Your task to perform on an android device: Do I have any events tomorrow? Image 0: 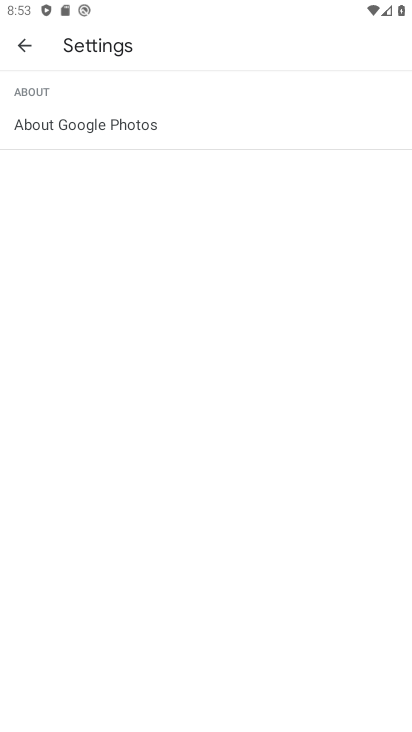
Step 0: press home button
Your task to perform on an android device: Do I have any events tomorrow? Image 1: 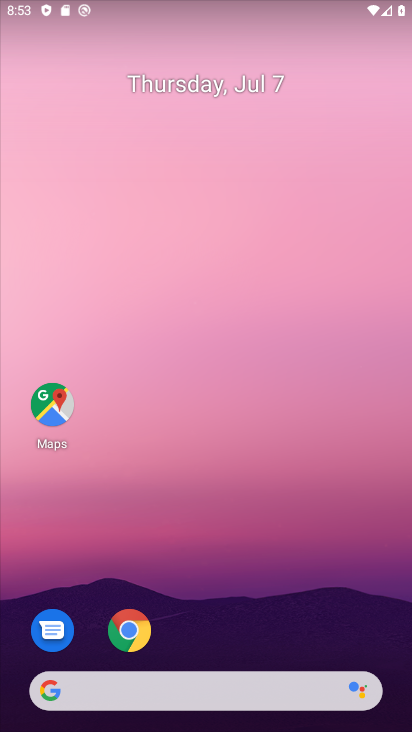
Step 1: drag from (275, 635) to (319, 69)
Your task to perform on an android device: Do I have any events tomorrow? Image 2: 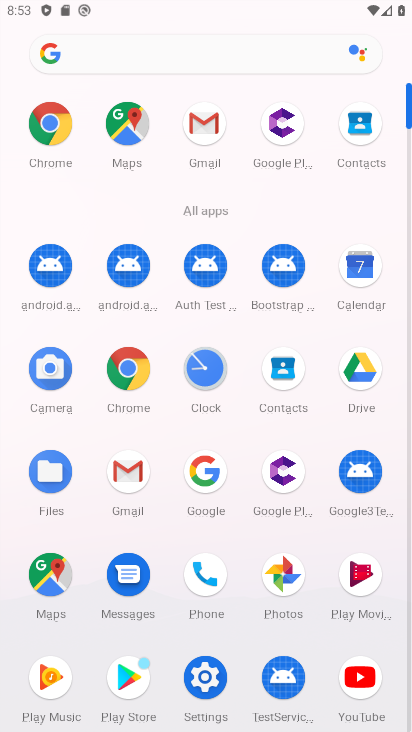
Step 2: click (358, 253)
Your task to perform on an android device: Do I have any events tomorrow? Image 3: 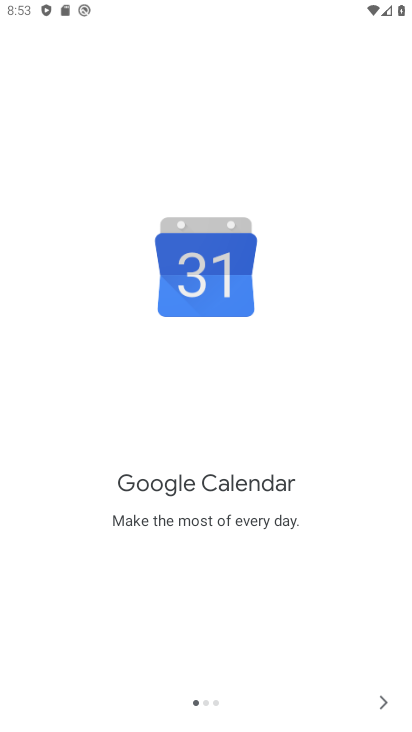
Step 3: click (387, 692)
Your task to perform on an android device: Do I have any events tomorrow? Image 4: 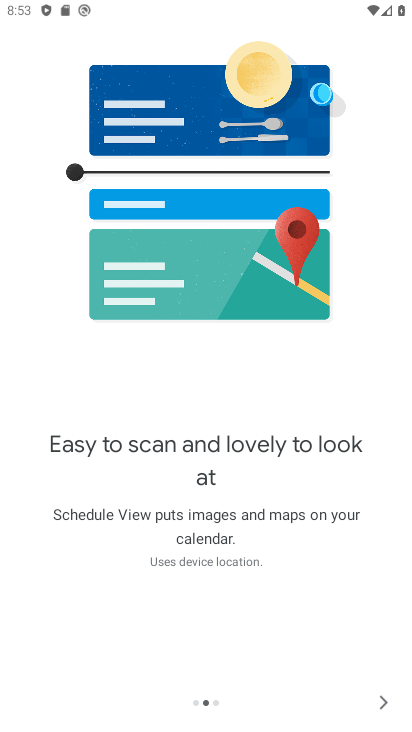
Step 4: click (387, 692)
Your task to perform on an android device: Do I have any events tomorrow? Image 5: 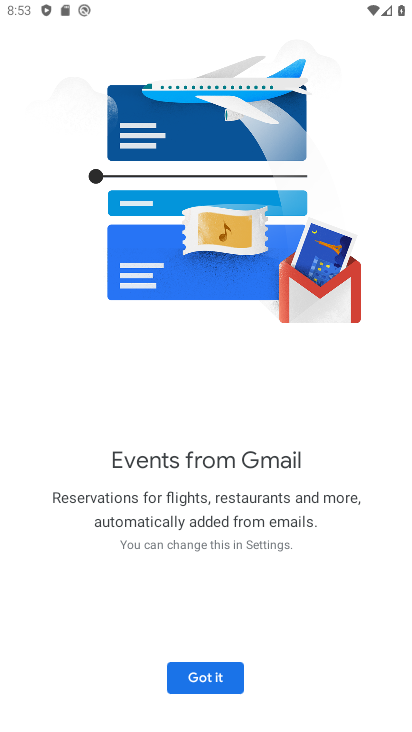
Step 5: click (226, 666)
Your task to perform on an android device: Do I have any events tomorrow? Image 6: 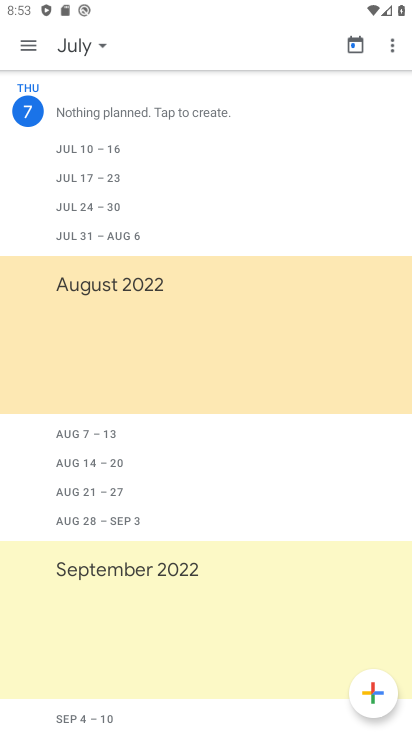
Step 6: click (84, 45)
Your task to perform on an android device: Do I have any events tomorrow? Image 7: 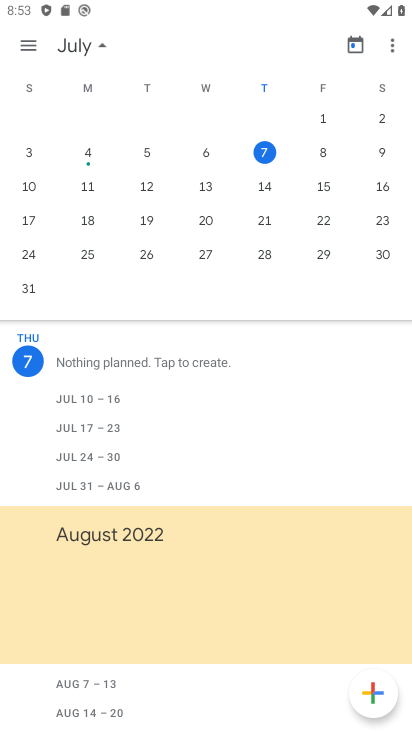
Step 7: click (380, 146)
Your task to perform on an android device: Do I have any events tomorrow? Image 8: 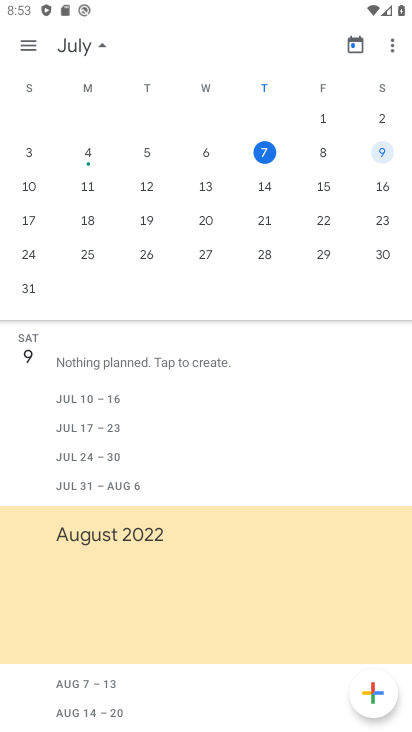
Step 8: task complete